Your task to perform on an android device: Turn off the flashlight Image 0: 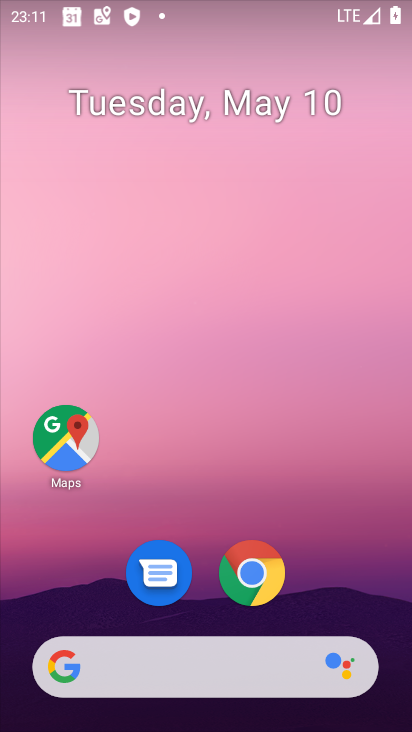
Step 0: click (300, 551)
Your task to perform on an android device: Turn off the flashlight Image 1: 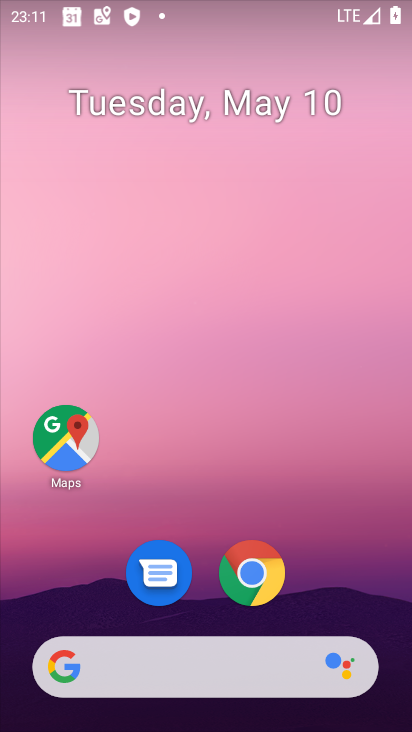
Step 1: drag from (340, 553) to (162, 57)
Your task to perform on an android device: Turn off the flashlight Image 2: 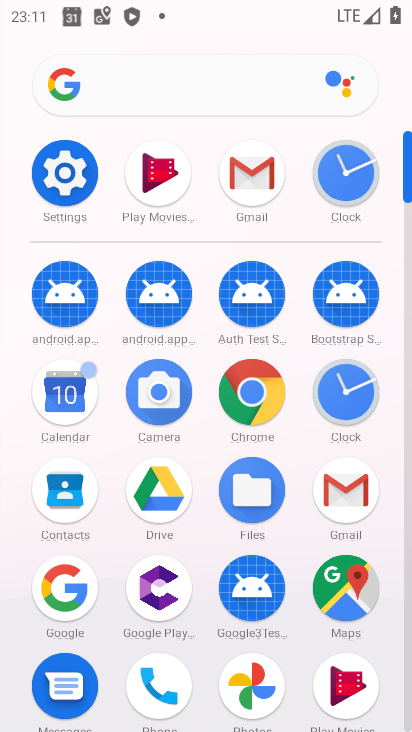
Step 2: click (63, 171)
Your task to perform on an android device: Turn off the flashlight Image 3: 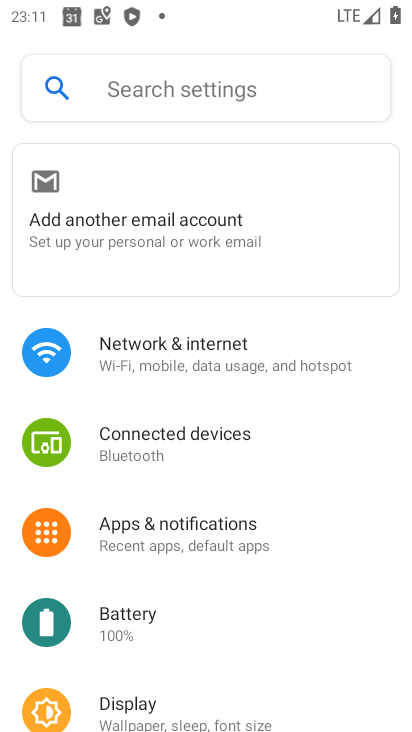
Step 3: click (127, 693)
Your task to perform on an android device: Turn off the flashlight Image 4: 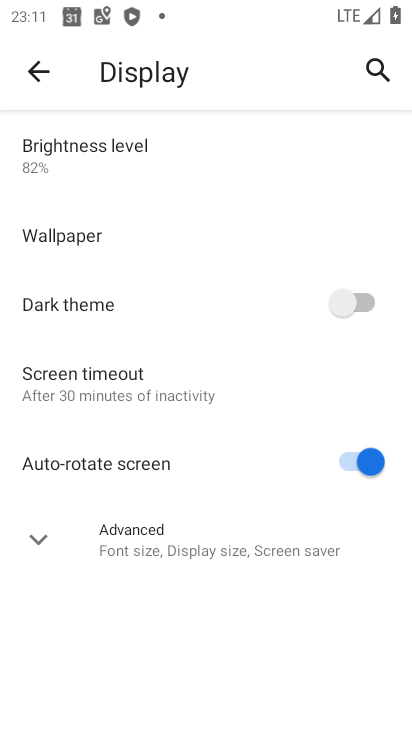
Step 4: task complete